Your task to perform on an android device: Do I have any events this weekend? Image 0: 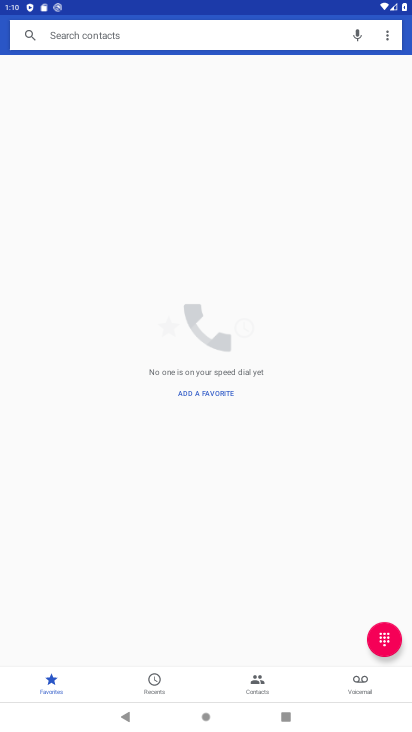
Step 0: press home button
Your task to perform on an android device: Do I have any events this weekend? Image 1: 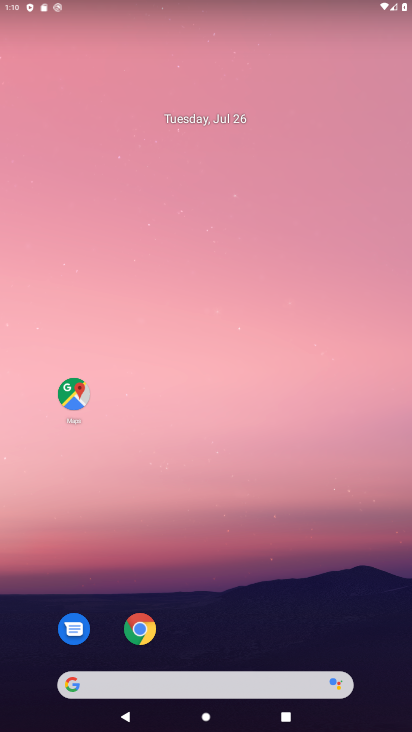
Step 1: drag from (369, 710) to (263, 153)
Your task to perform on an android device: Do I have any events this weekend? Image 2: 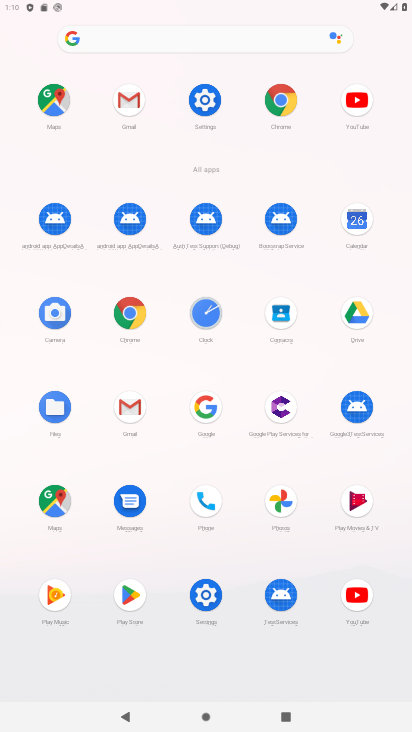
Step 2: click (356, 226)
Your task to perform on an android device: Do I have any events this weekend? Image 3: 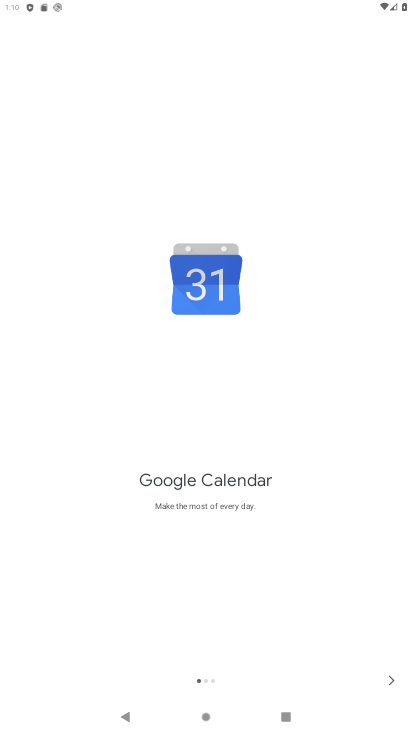
Step 3: click (392, 678)
Your task to perform on an android device: Do I have any events this weekend? Image 4: 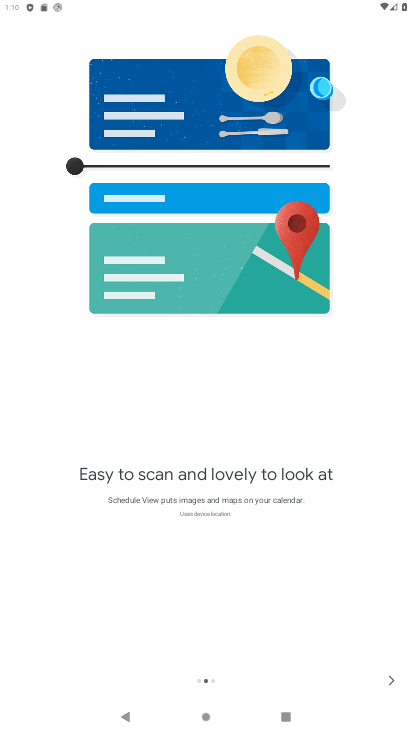
Step 4: click (392, 678)
Your task to perform on an android device: Do I have any events this weekend? Image 5: 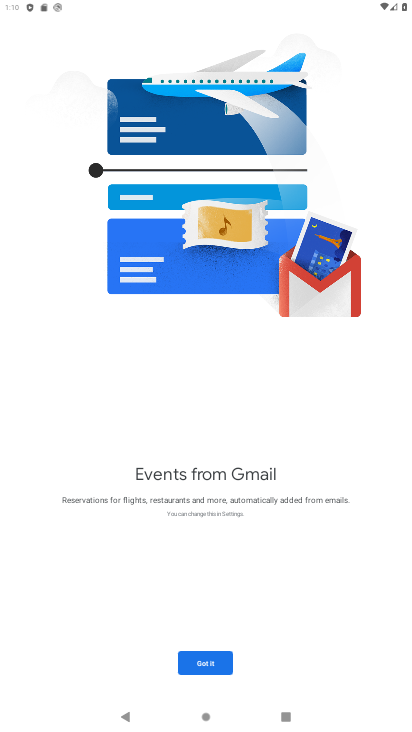
Step 5: click (202, 666)
Your task to perform on an android device: Do I have any events this weekend? Image 6: 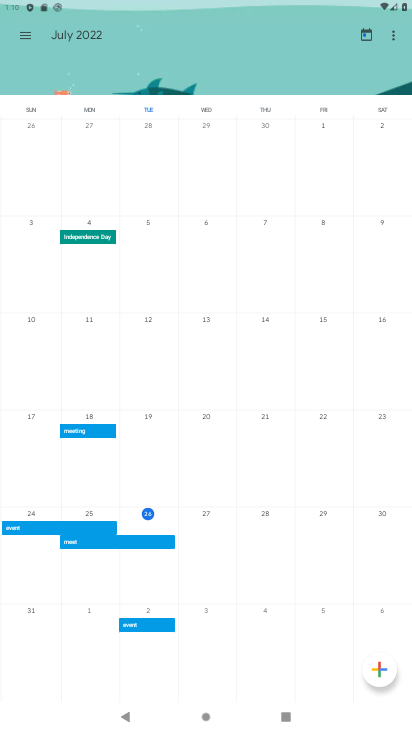
Step 6: click (21, 34)
Your task to perform on an android device: Do I have any events this weekend? Image 7: 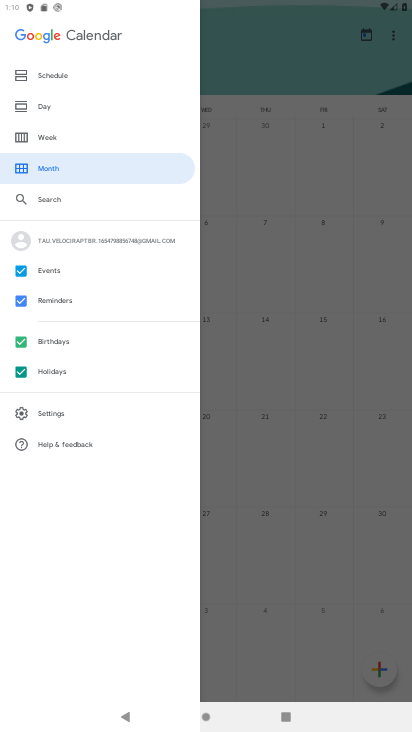
Step 7: click (49, 138)
Your task to perform on an android device: Do I have any events this weekend? Image 8: 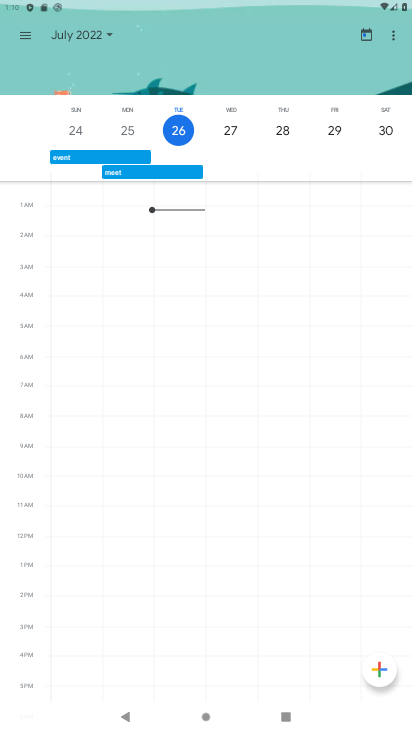
Step 8: click (27, 33)
Your task to perform on an android device: Do I have any events this weekend? Image 9: 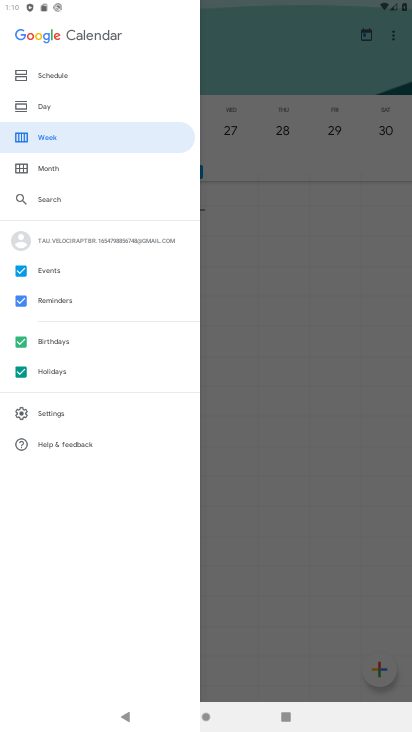
Step 9: click (50, 76)
Your task to perform on an android device: Do I have any events this weekend? Image 10: 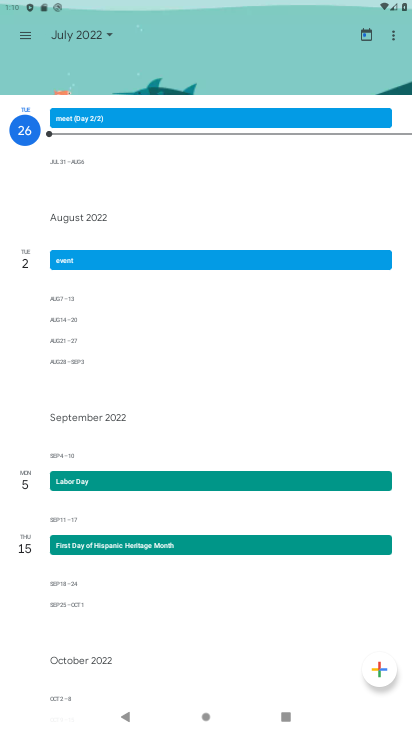
Step 10: task complete